Your task to perform on an android device: Empty the shopping cart on walmart. Image 0: 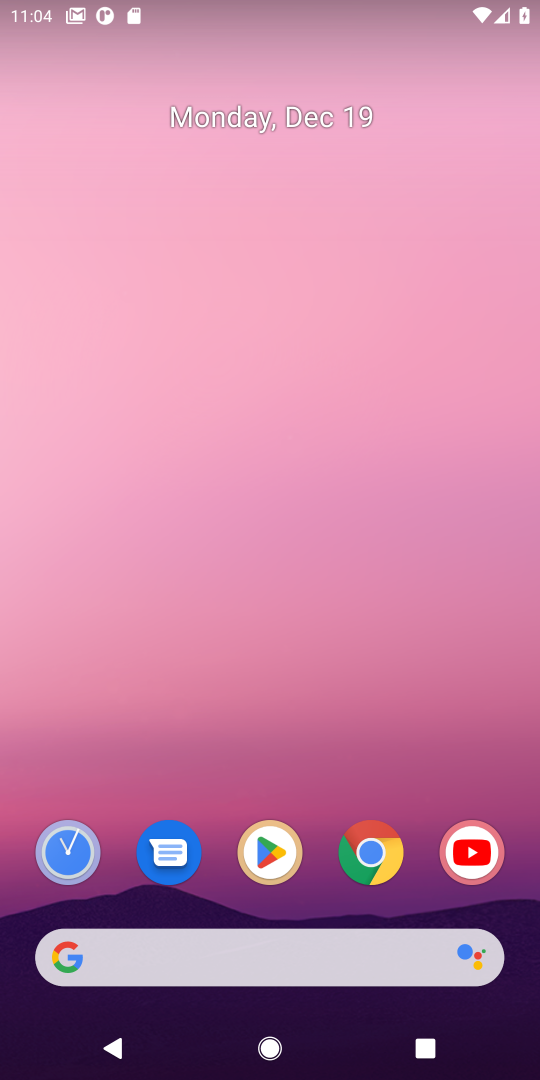
Step 0: click (377, 865)
Your task to perform on an android device: Empty the shopping cart on walmart. Image 1: 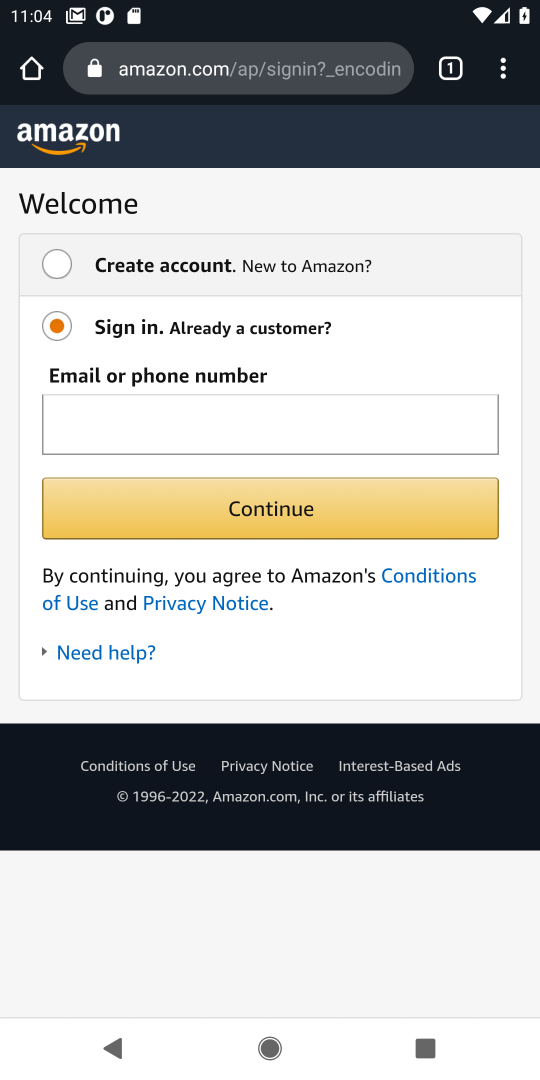
Step 1: click (183, 65)
Your task to perform on an android device: Empty the shopping cart on walmart. Image 2: 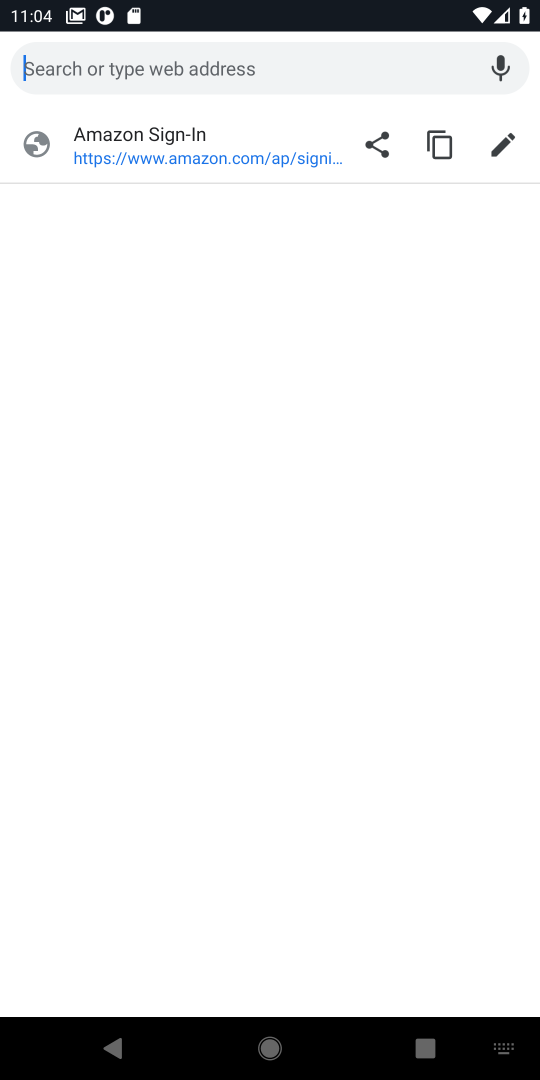
Step 2: type "walmart.com"
Your task to perform on an android device: Empty the shopping cart on walmart. Image 3: 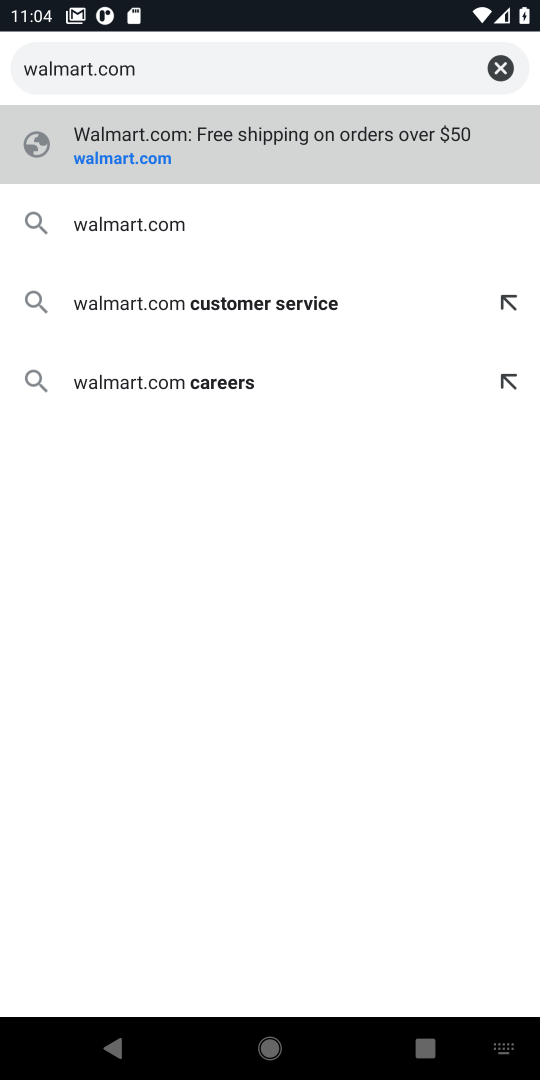
Step 3: click (131, 159)
Your task to perform on an android device: Empty the shopping cart on walmart. Image 4: 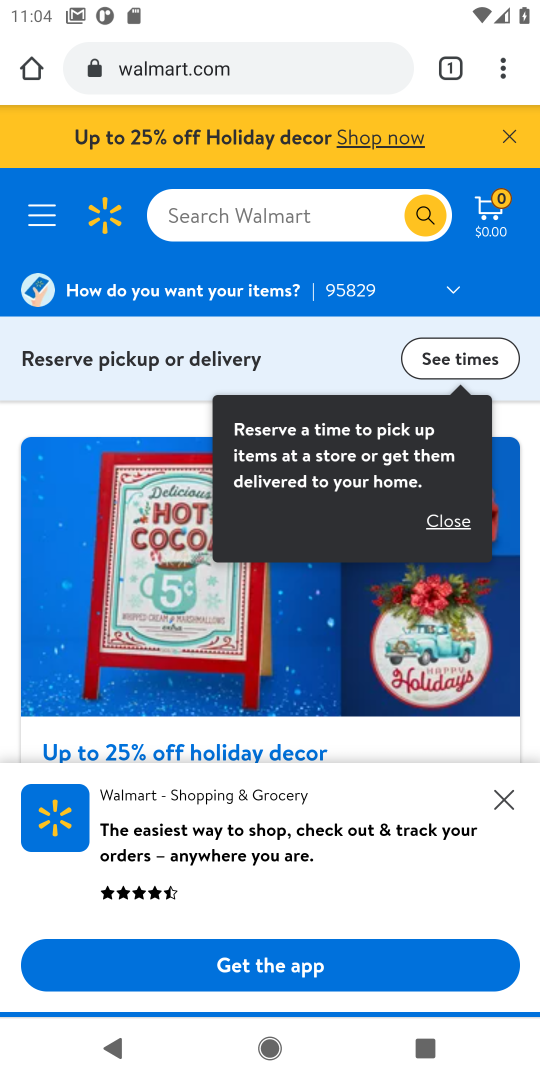
Step 4: click (488, 212)
Your task to perform on an android device: Empty the shopping cart on walmart. Image 5: 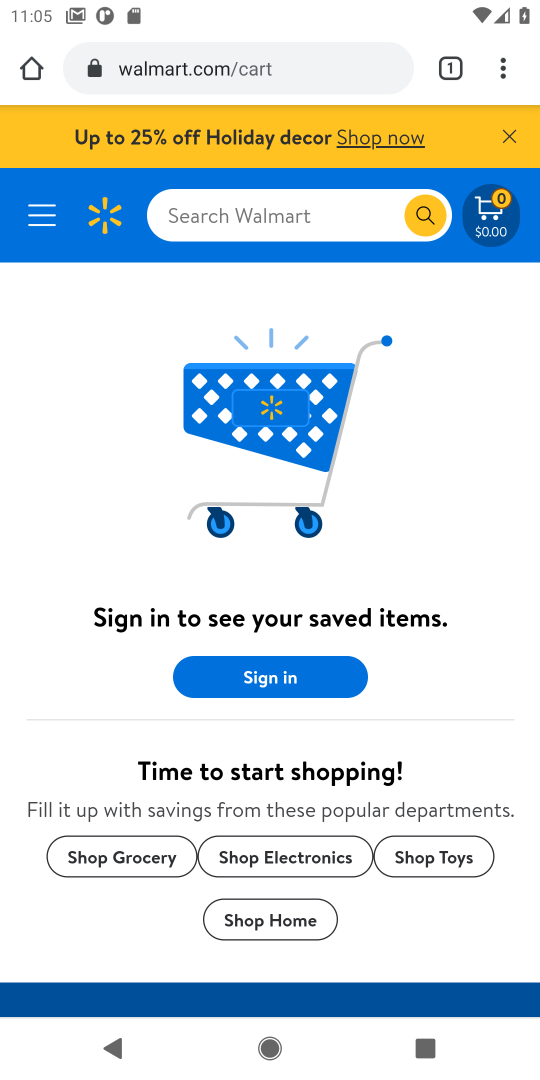
Step 5: task complete